Your task to perform on an android device: turn on showing notifications on the lock screen Image 0: 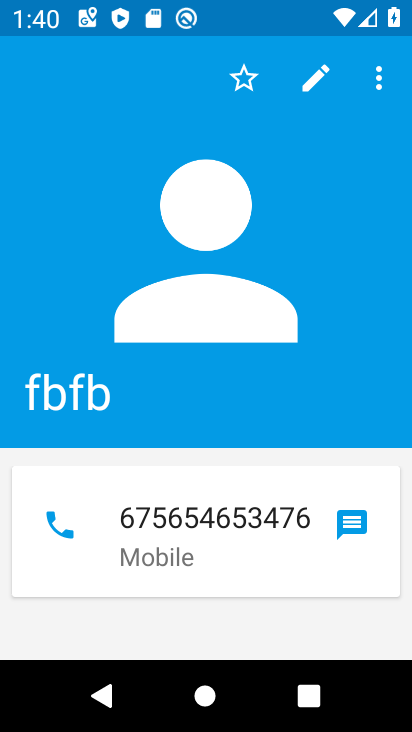
Step 0: press back button
Your task to perform on an android device: turn on showing notifications on the lock screen Image 1: 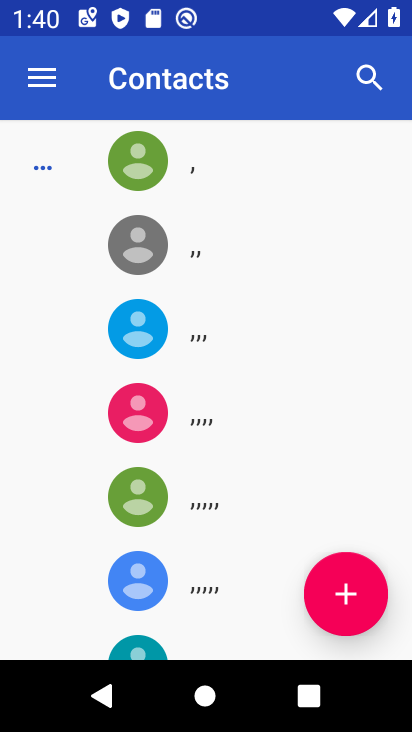
Step 1: press back button
Your task to perform on an android device: turn on showing notifications on the lock screen Image 2: 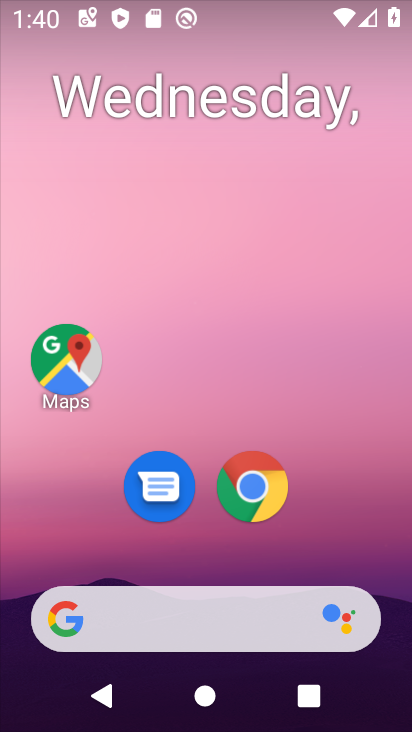
Step 2: drag from (199, 515) to (199, 83)
Your task to perform on an android device: turn on showing notifications on the lock screen Image 3: 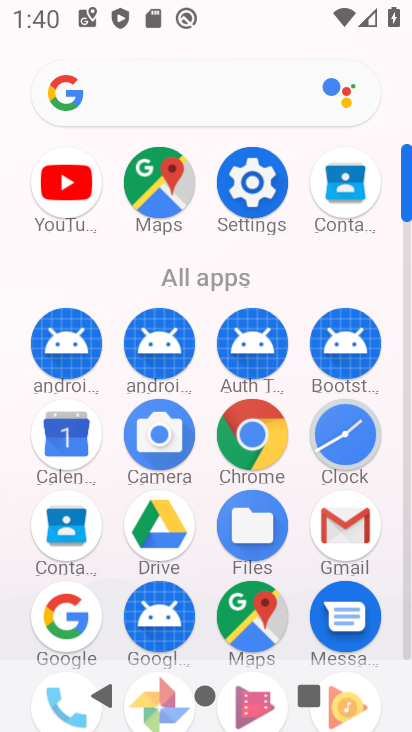
Step 3: click (255, 177)
Your task to perform on an android device: turn on showing notifications on the lock screen Image 4: 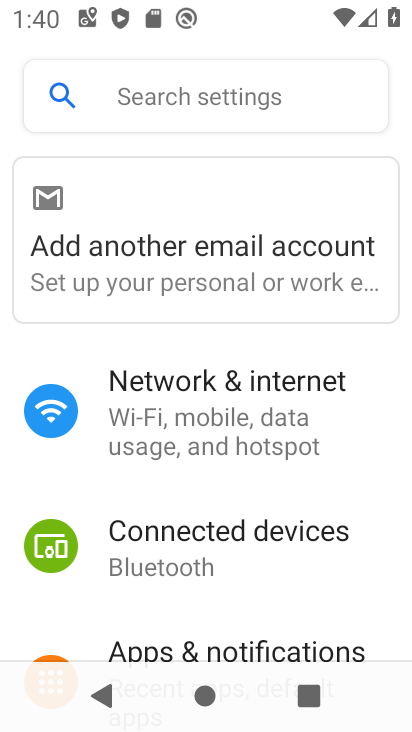
Step 4: click (213, 515)
Your task to perform on an android device: turn on showing notifications on the lock screen Image 5: 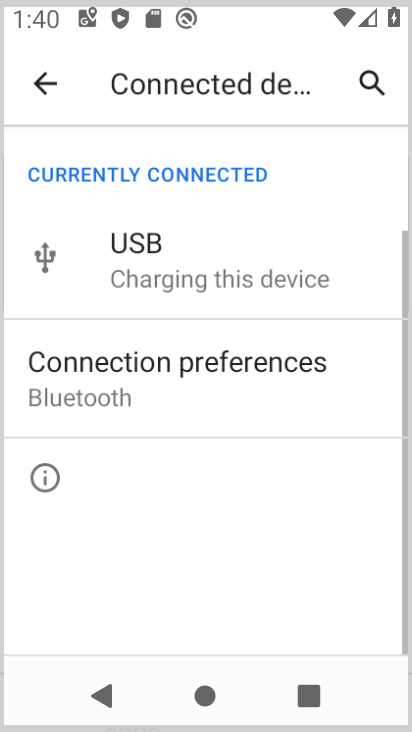
Step 5: drag from (213, 515) to (229, 300)
Your task to perform on an android device: turn on showing notifications on the lock screen Image 6: 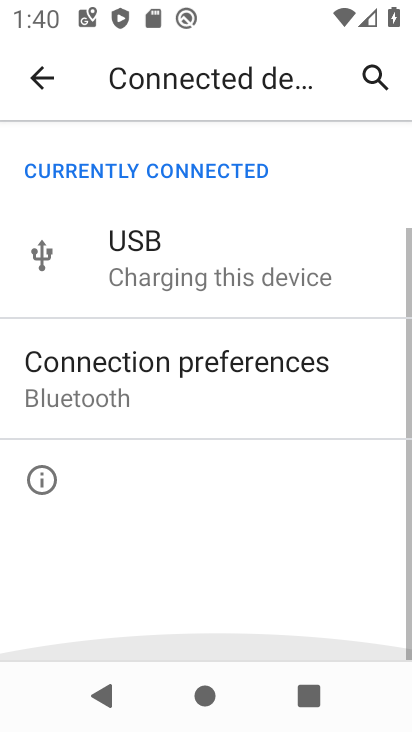
Step 6: click (27, 68)
Your task to perform on an android device: turn on showing notifications on the lock screen Image 7: 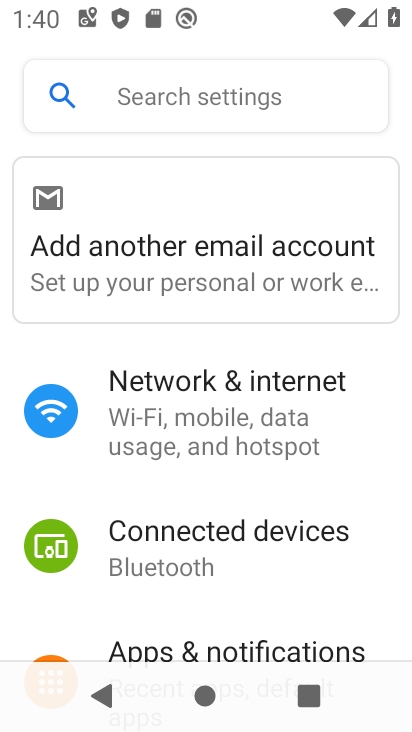
Step 7: drag from (240, 593) to (241, 193)
Your task to perform on an android device: turn on showing notifications on the lock screen Image 8: 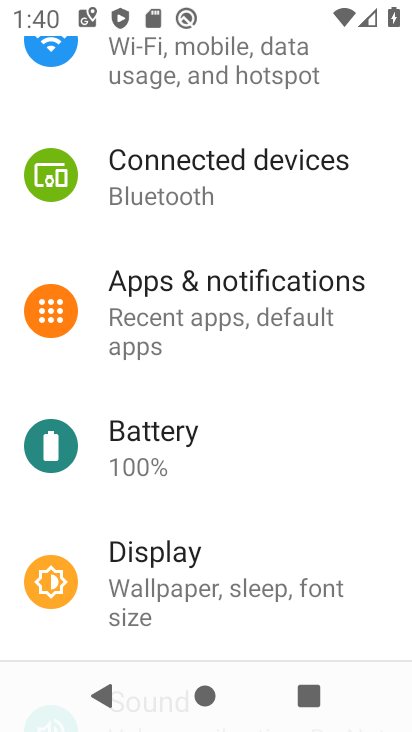
Step 8: click (234, 299)
Your task to perform on an android device: turn on showing notifications on the lock screen Image 9: 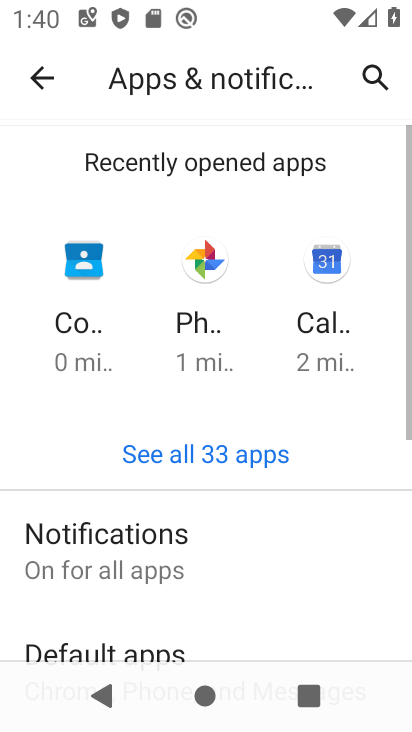
Step 9: drag from (157, 574) to (198, 228)
Your task to perform on an android device: turn on showing notifications on the lock screen Image 10: 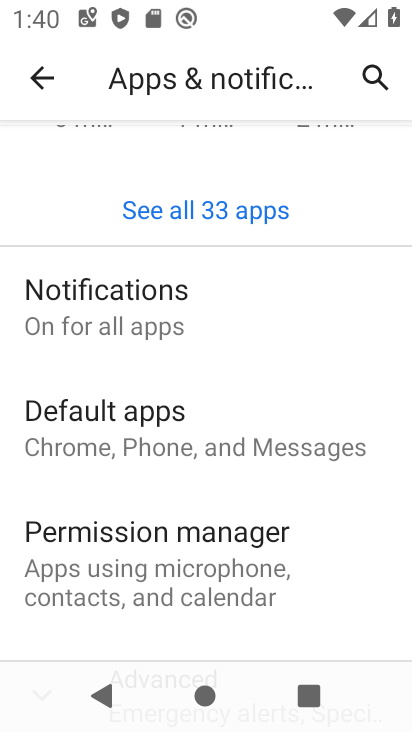
Step 10: click (166, 305)
Your task to perform on an android device: turn on showing notifications on the lock screen Image 11: 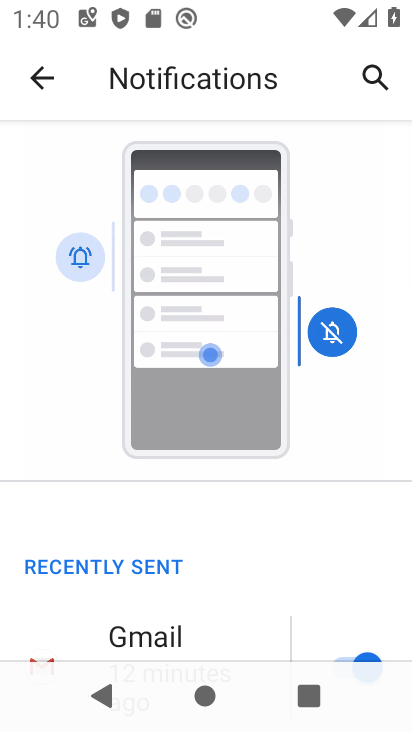
Step 11: drag from (141, 622) to (209, 103)
Your task to perform on an android device: turn on showing notifications on the lock screen Image 12: 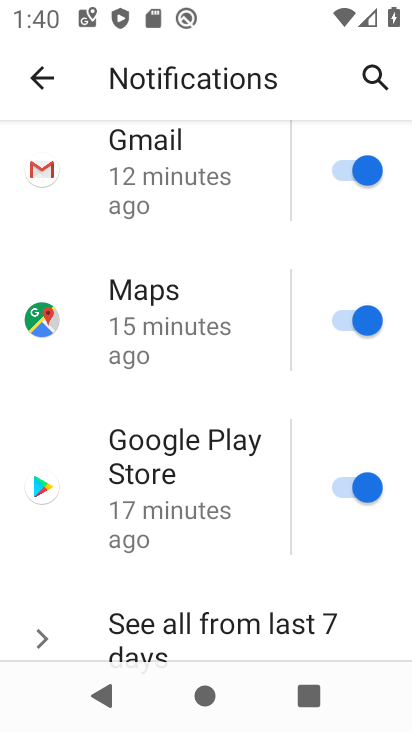
Step 12: drag from (168, 554) to (222, 49)
Your task to perform on an android device: turn on showing notifications on the lock screen Image 13: 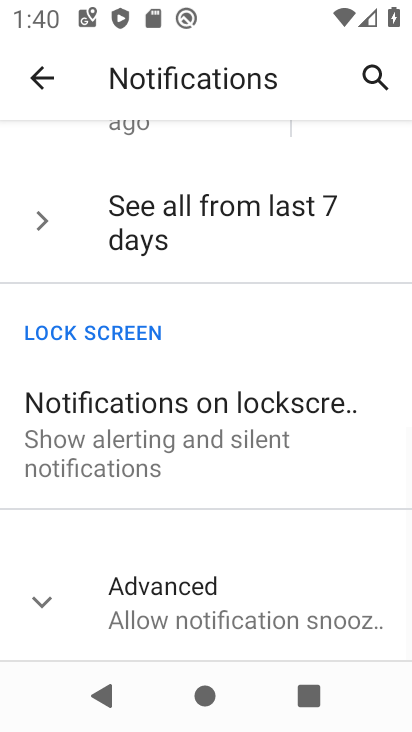
Step 13: click (177, 404)
Your task to perform on an android device: turn on showing notifications on the lock screen Image 14: 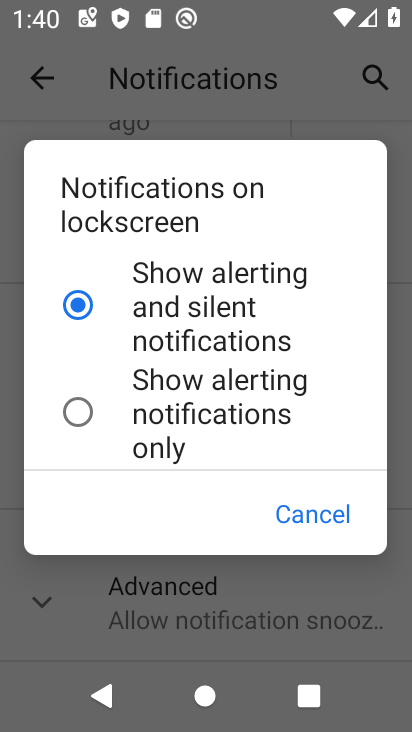
Step 14: task complete